Your task to perform on an android device: Open Youtube and go to the subscriptions tab Image 0: 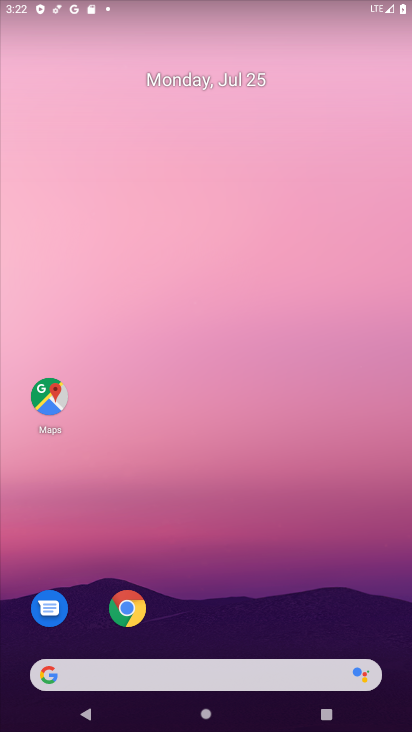
Step 0: drag from (125, 299) to (186, 101)
Your task to perform on an android device: Open Youtube and go to the subscriptions tab Image 1: 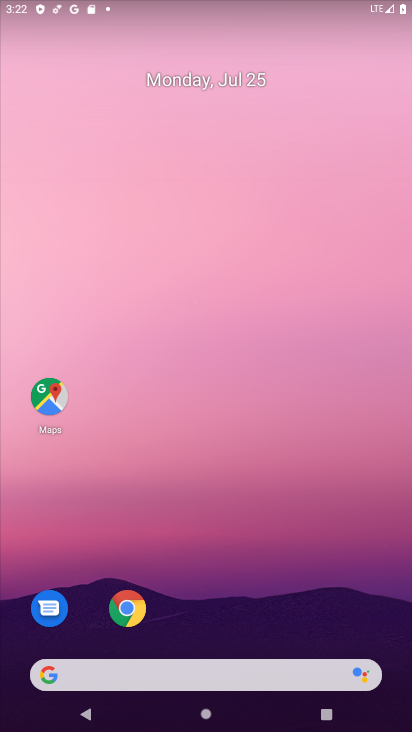
Step 1: drag from (218, 114) to (259, 15)
Your task to perform on an android device: Open Youtube and go to the subscriptions tab Image 2: 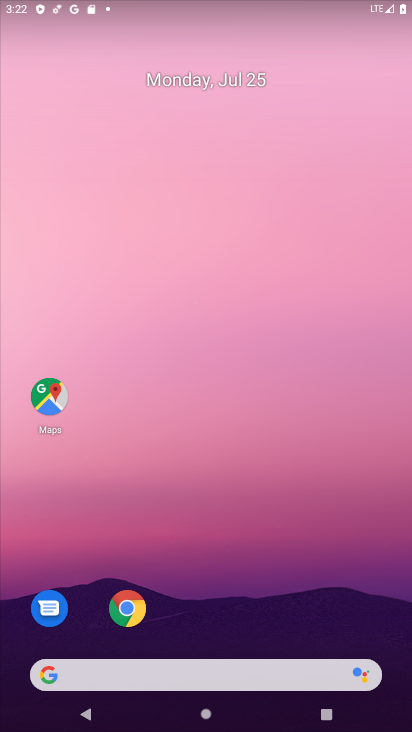
Step 2: drag from (78, 503) to (281, 45)
Your task to perform on an android device: Open Youtube and go to the subscriptions tab Image 3: 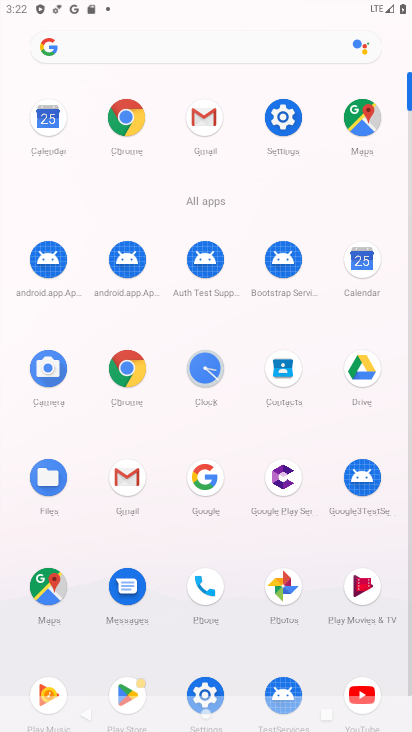
Step 3: click (354, 685)
Your task to perform on an android device: Open Youtube and go to the subscriptions tab Image 4: 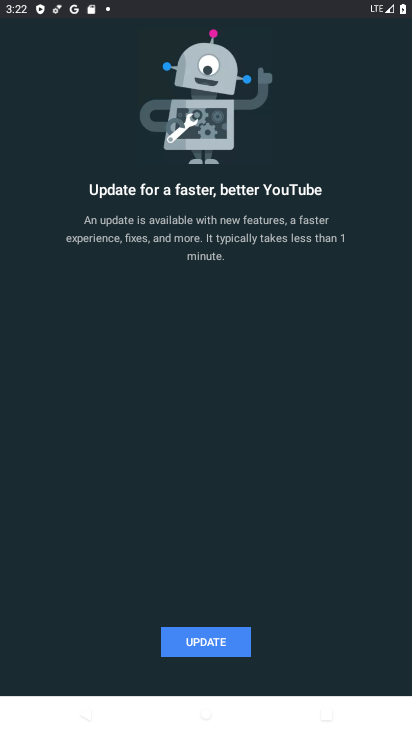
Step 4: task complete